Your task to perform on an android device: turn off picture-in-picture Image 0: 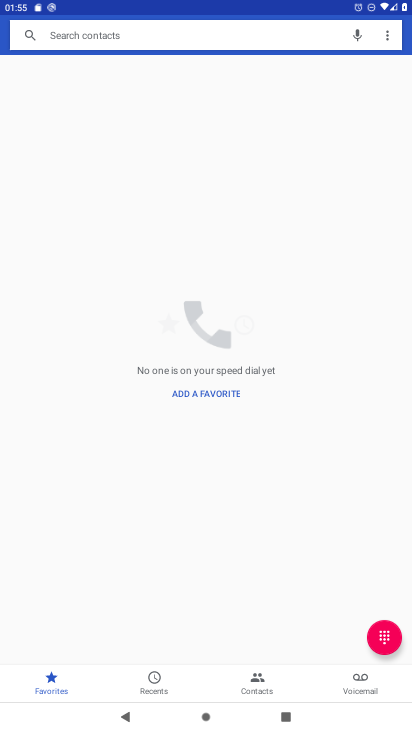
Step 0: press home button
Your task to perform on an android device: turn off picture-in-picture Image 1: 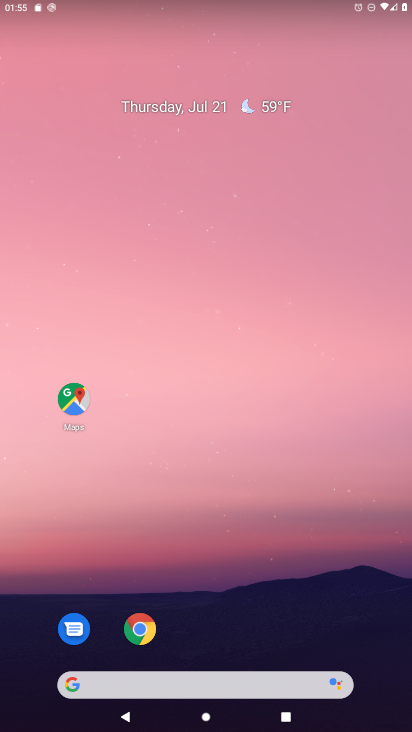
Step 1: drag from (363, 646) to (363, 108)
Your task to perform on an android device: turn off picture-in-picture Image 2: 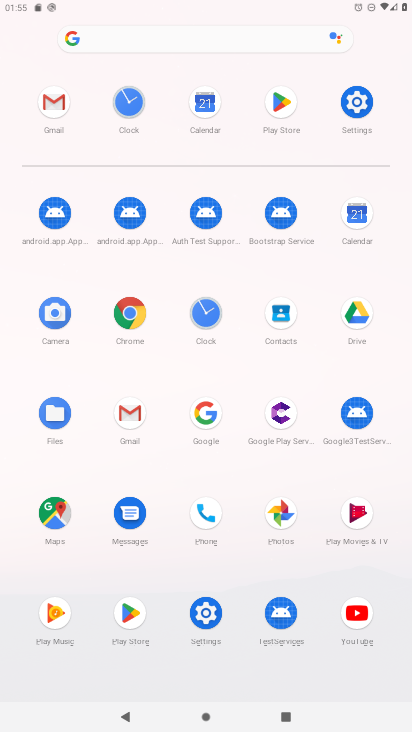
Step 2: click (204, 614)
Your task to perform on an android device: turn off picture-in-picture Image 3: 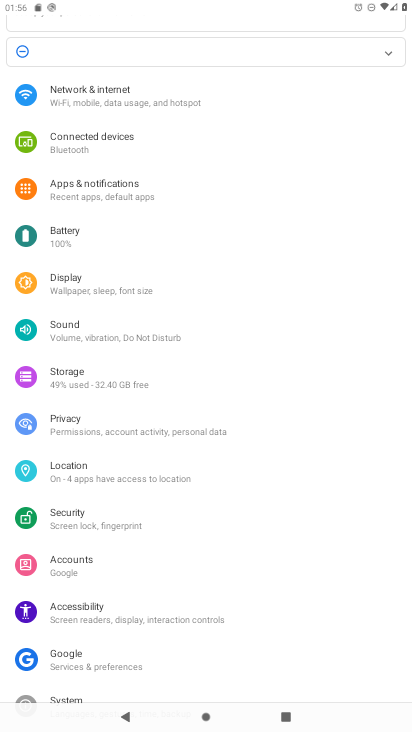
Step 3: click (74, 180)
Your task to perform on an android device: turn off picture-in-picture Image 4: 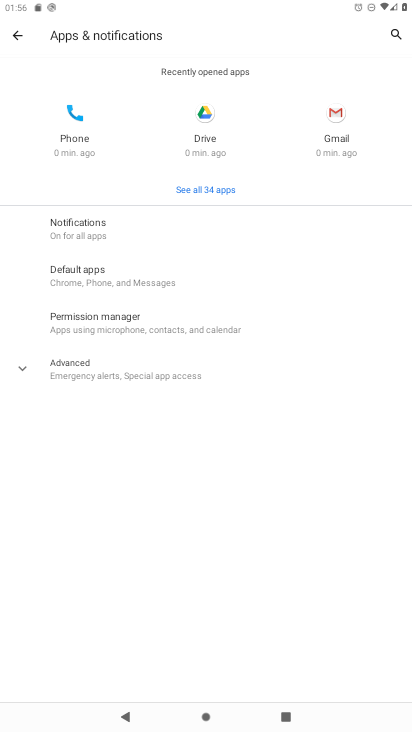
Step 4: click (21, 367)
Your task to perform on an android device: turn off picture-in-picture Image 5: 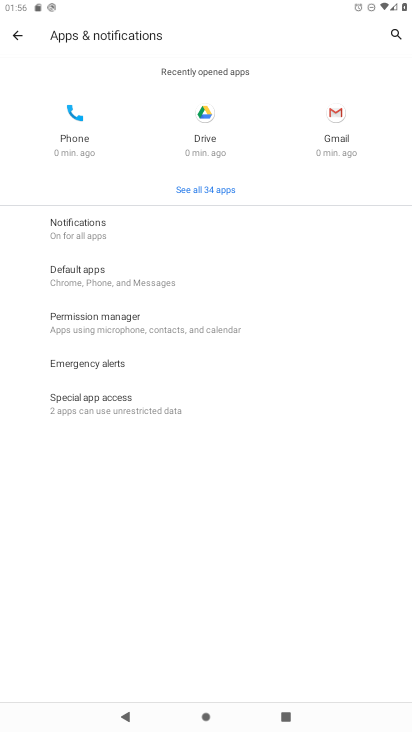
Step 5: click (88, 400)
Your task to perform on an android device: turn off picture-in-picture Image 6: 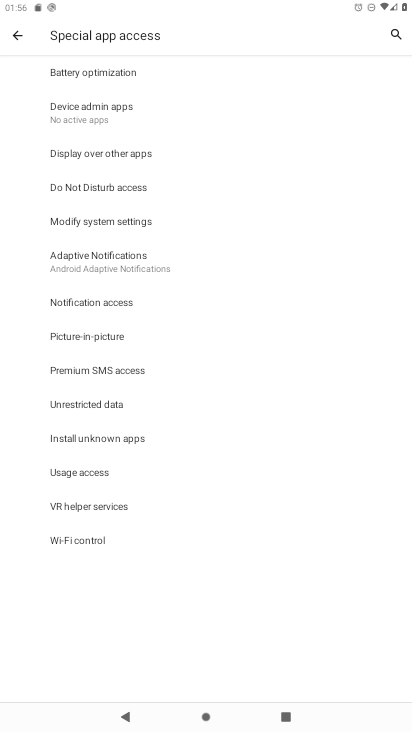
Step 6: click (72, 338)
Your task to perform on an android device: turn off picture-in-picture Image 7: 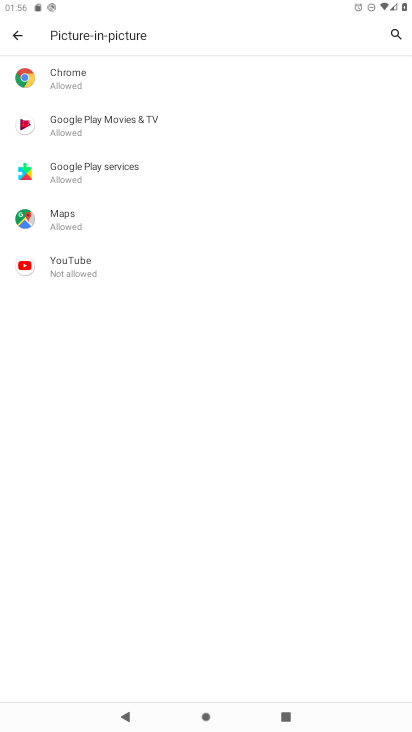
Step 7: click (65, 268)
Your task to perform on an android device: turn off picture-in-picture Image 8: 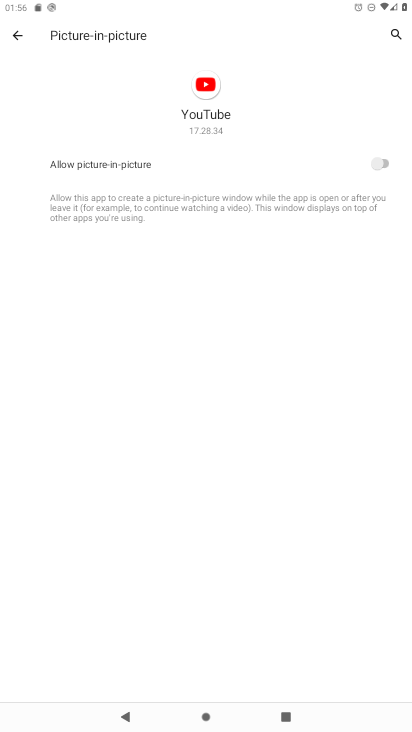
Step 8: press back button
Your task to perform on an android device: turn off picture-in-picture Image 9: 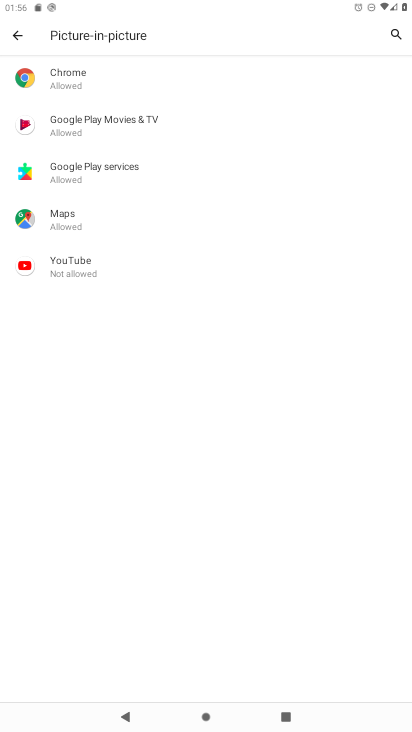
Step 9: click (65, 212)
Your task to perform on an android device: turn off picture-in-picture Image 10: 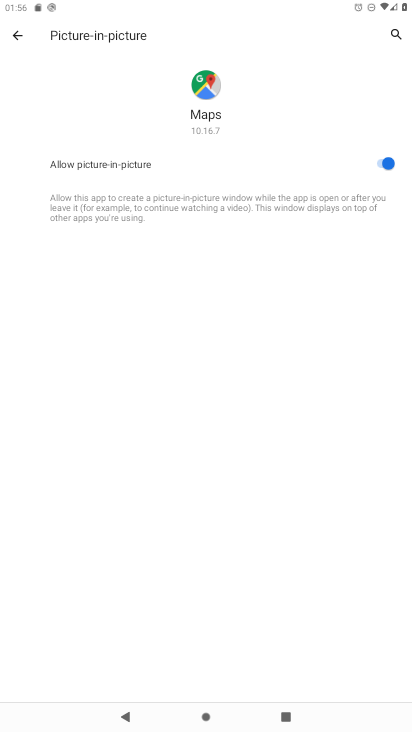
Step 10: click (377, 161)
Your task to perform on an android device: turn off picture-in-picture Image 11: 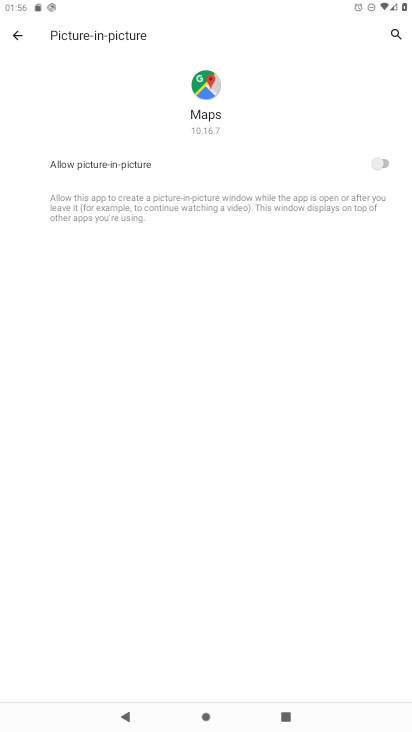
Step 11: task complete